Your task to perform on an android device: Clear all items from cart on target. Image 0: 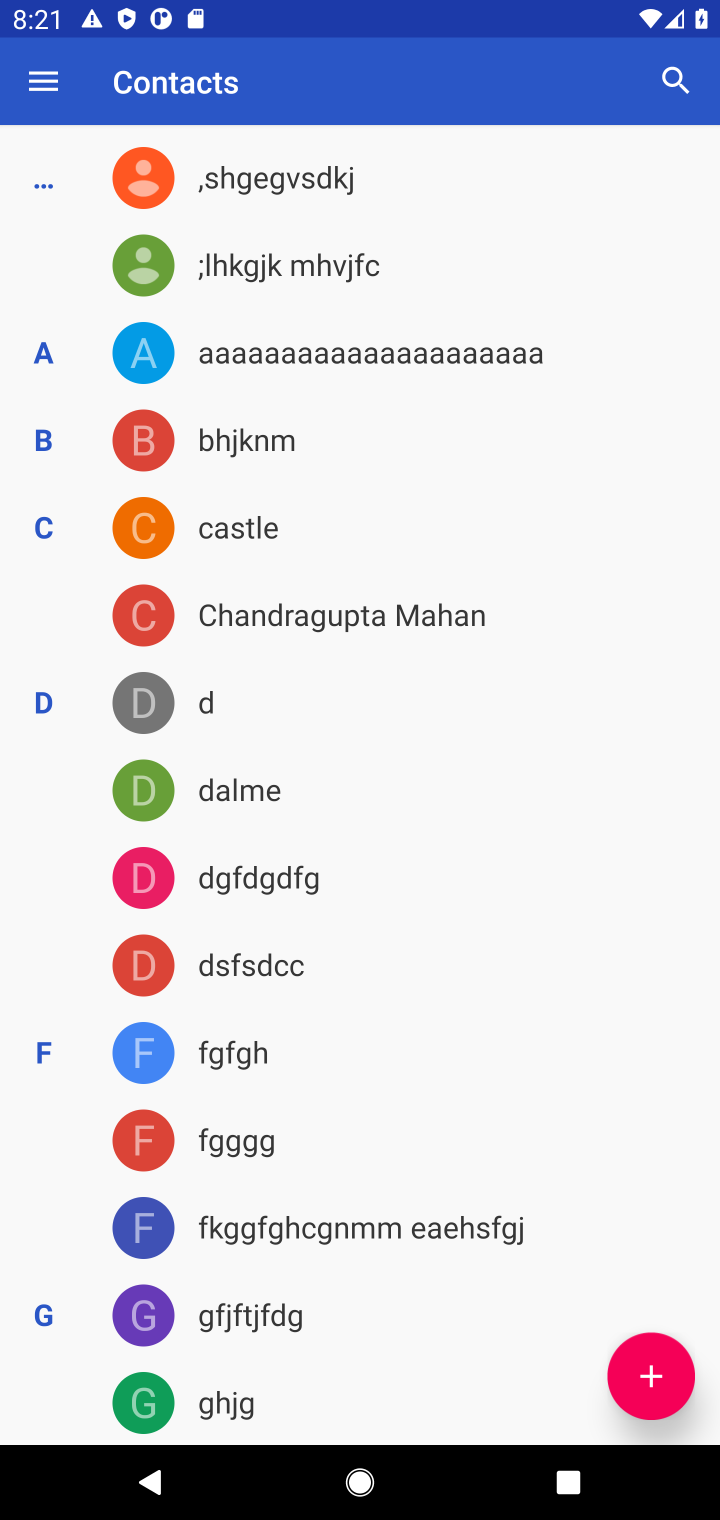
Step 0: press home button
Your task to perform on an android device: Clear all items from cart on target. Image 1: 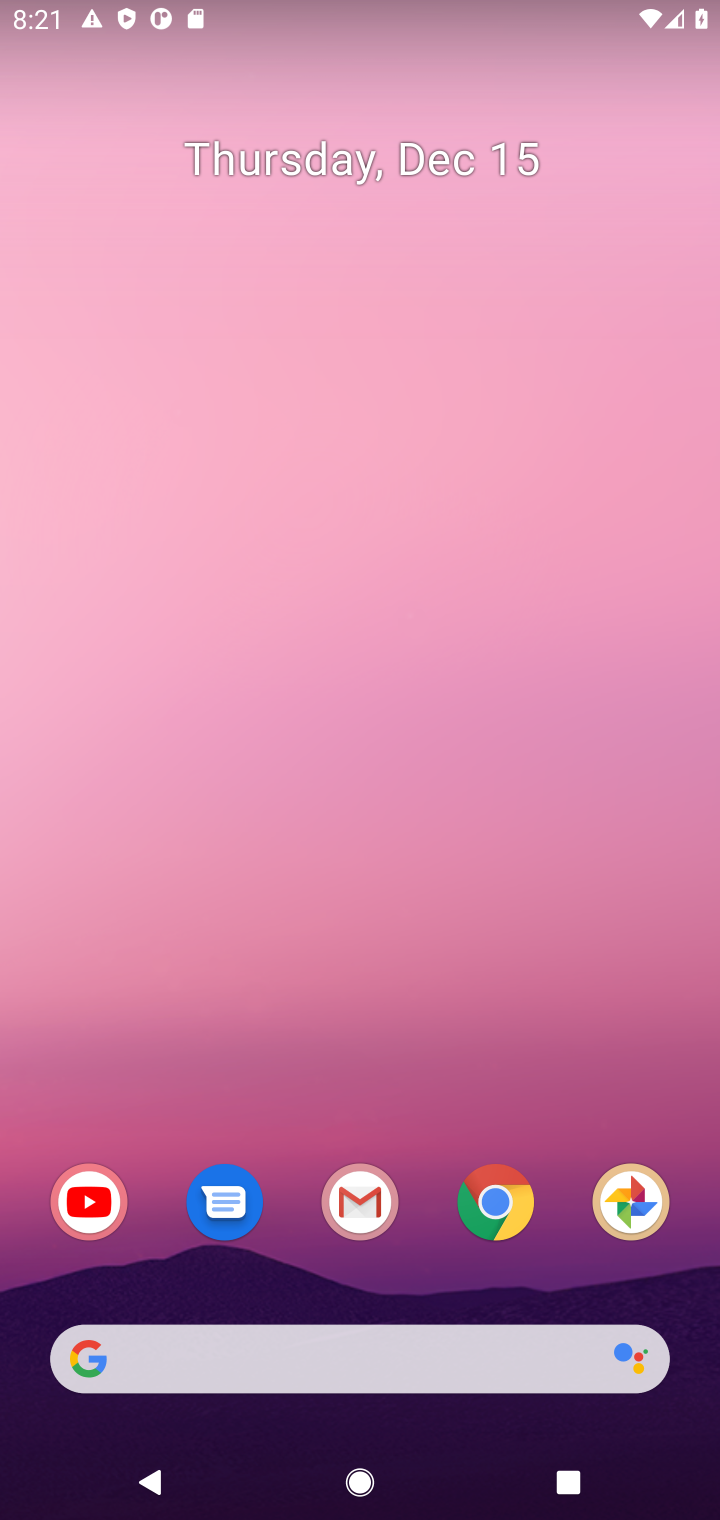
Step 1: click (501, 1207)
Your task to perform on an android device: Clear all items from cart on target. Image 2: 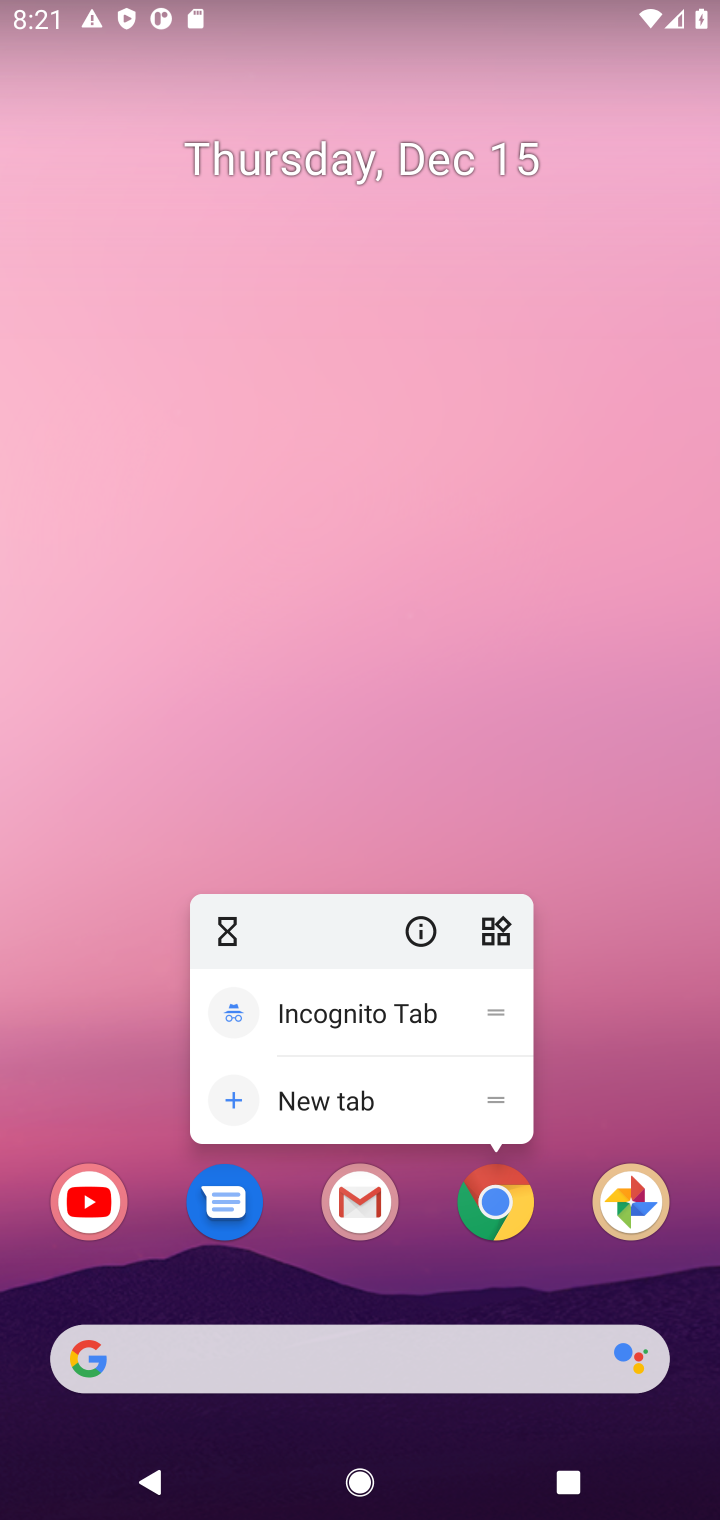
Step 2: click (501, 1207)
Your task to perform on an android device: Clear all items from cart on target. Image 3: 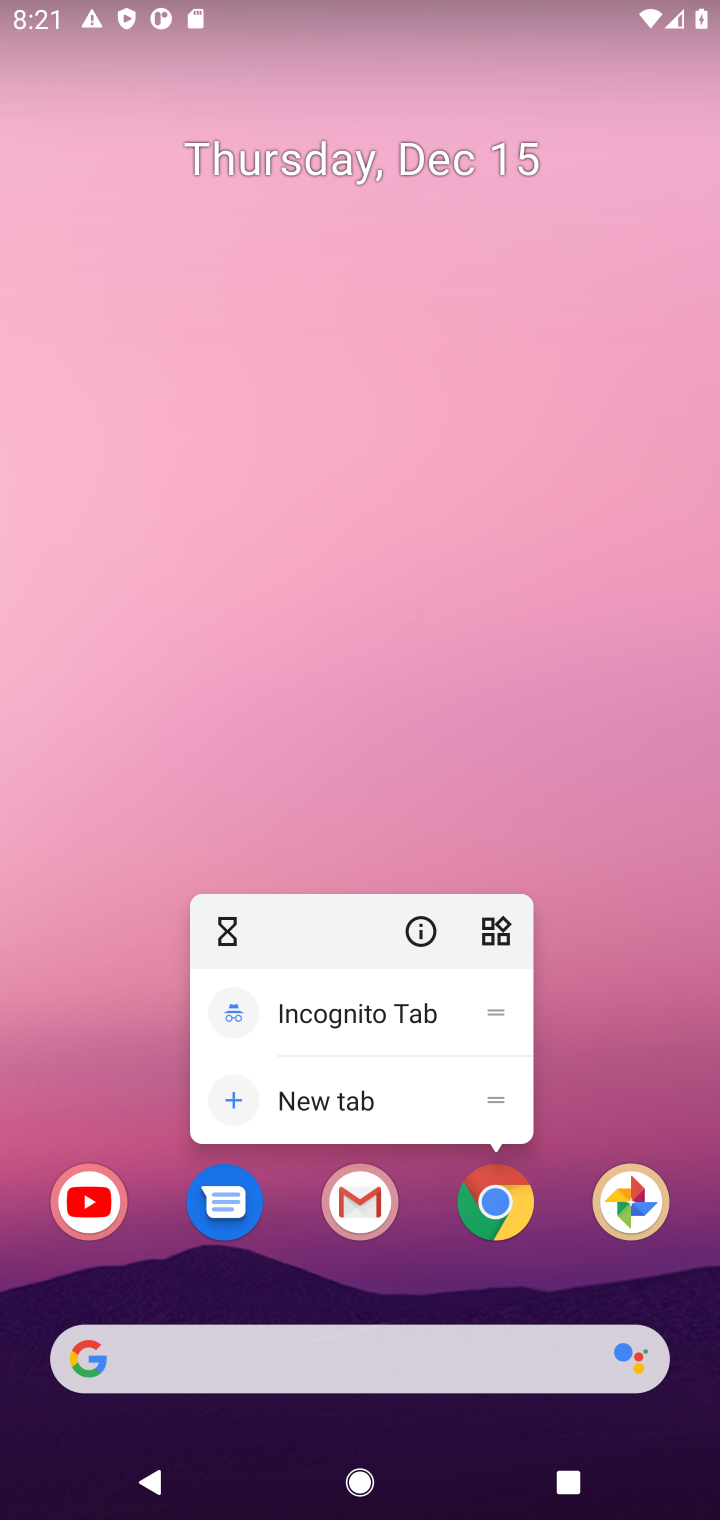
Step 3: click (501, 1207)
Your task to perform on an android device: Clear all items from cart on target. Image 4: 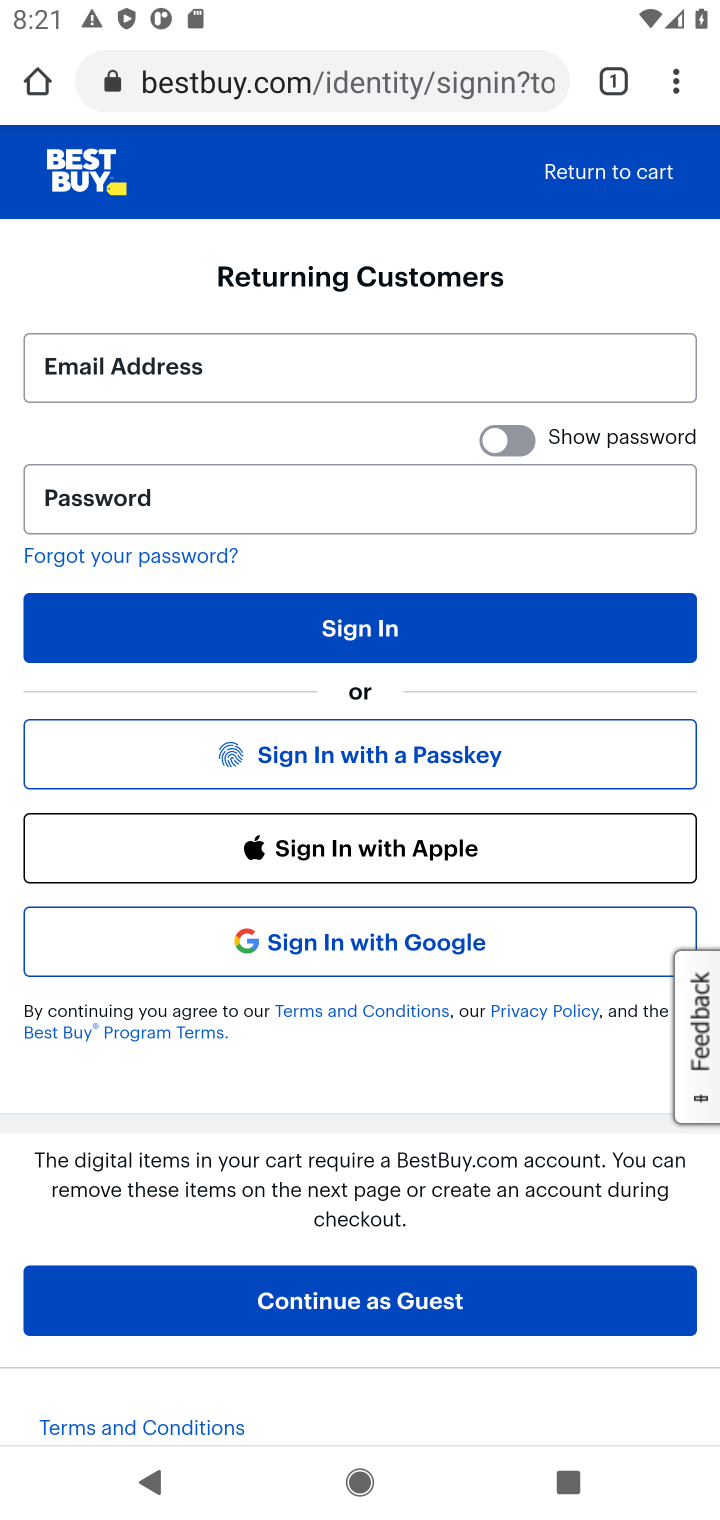
Step 4: click (283, 82)
Your task to perform on an android device: Clear all items from cart on target. Image 5: 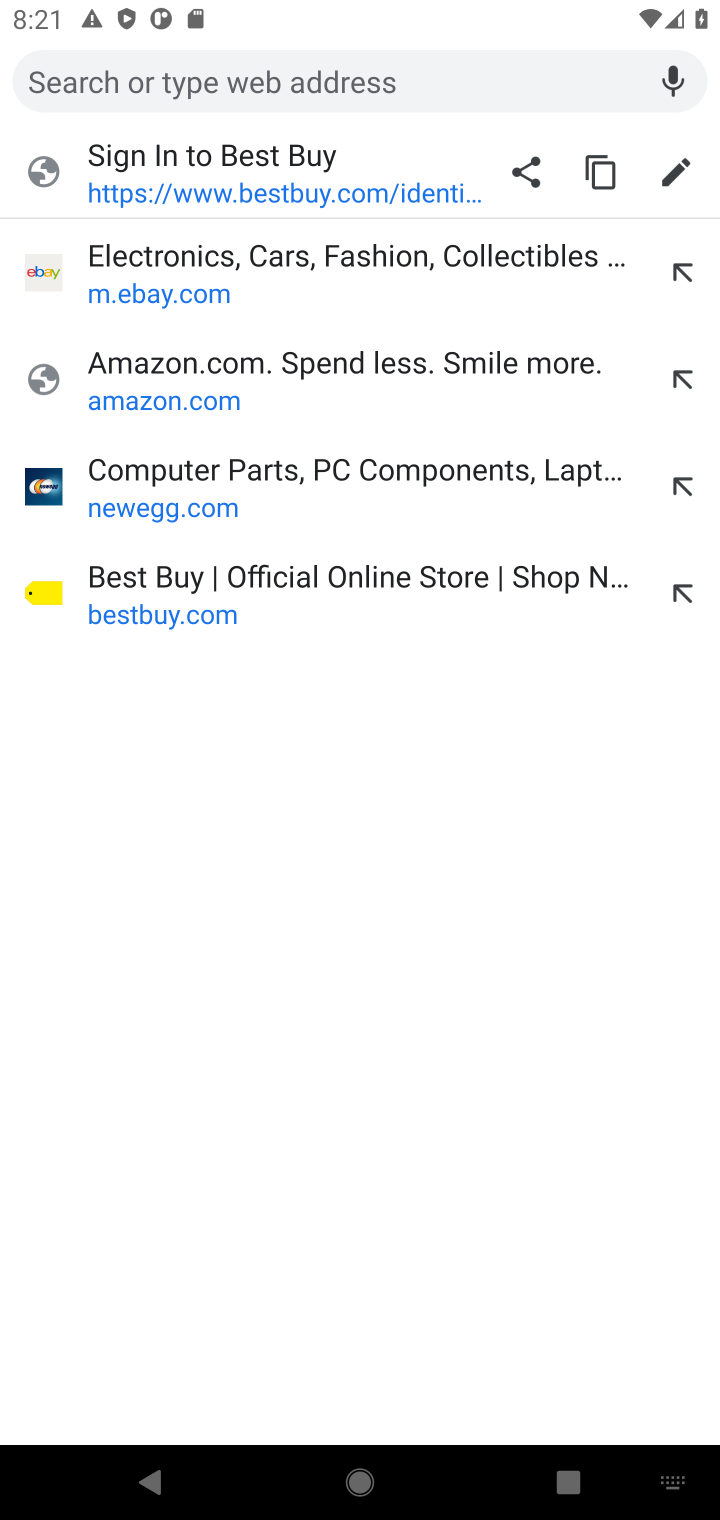
Step 5: type "target.com"
Your task to perform on an android device: Clear all items from cart on target. Image 6: 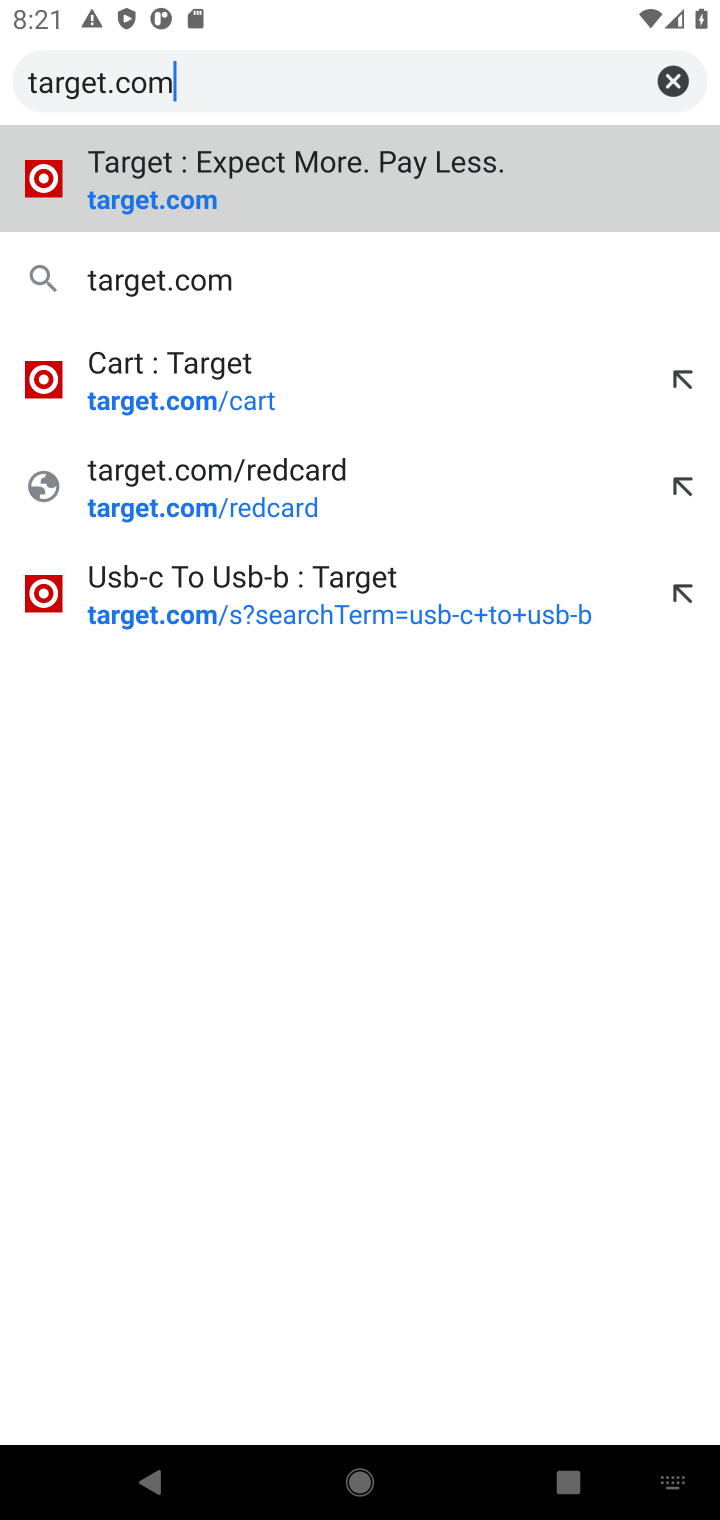
Step 6: click (144, 208)
Your task to perform on an android device: Clear all items from cart on target. Image 7: 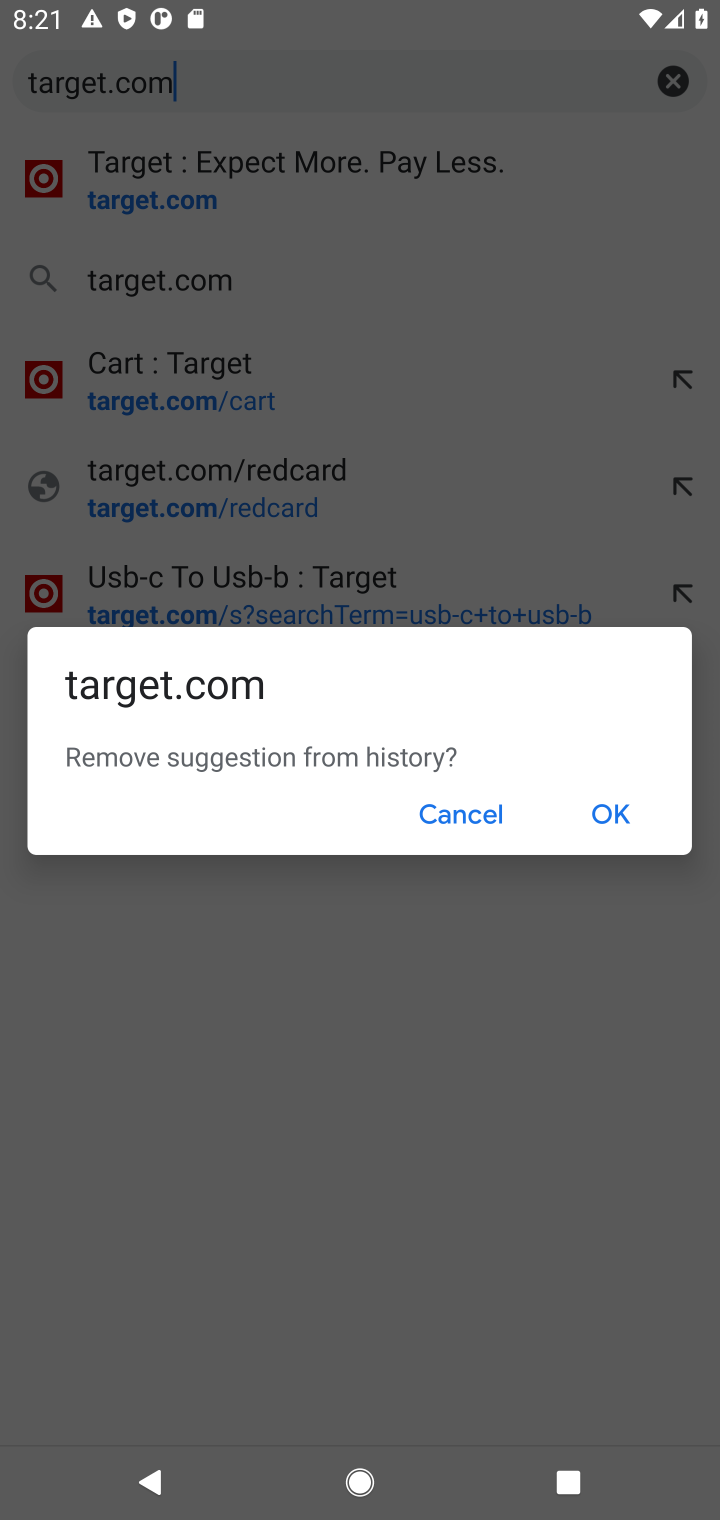
Step 7: click (441, 800)
Your task to perform on an android device: Clear all items from cart on target. Image 8: 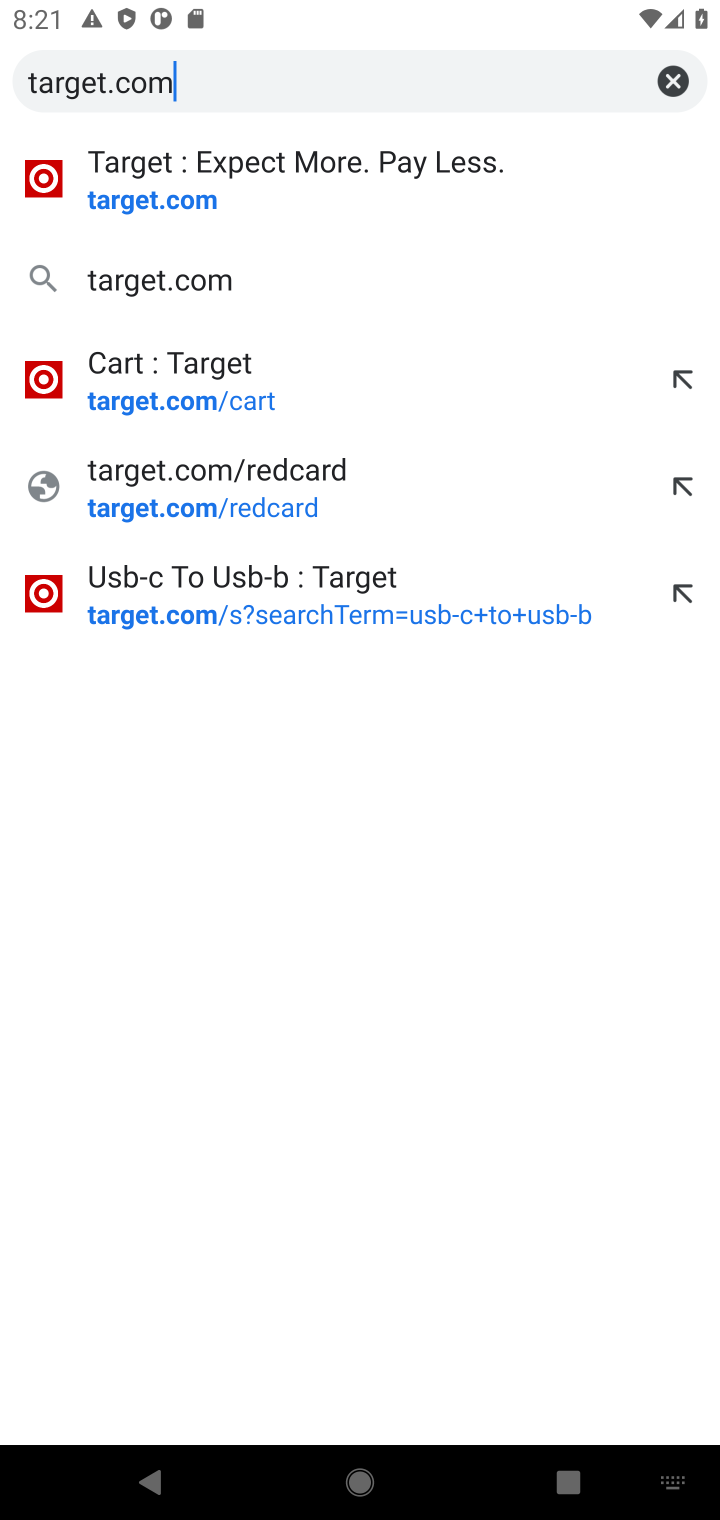
Step 8: click (132, 198)
Your task to perform on an android device: Clear all items from cart on target. Image 9: 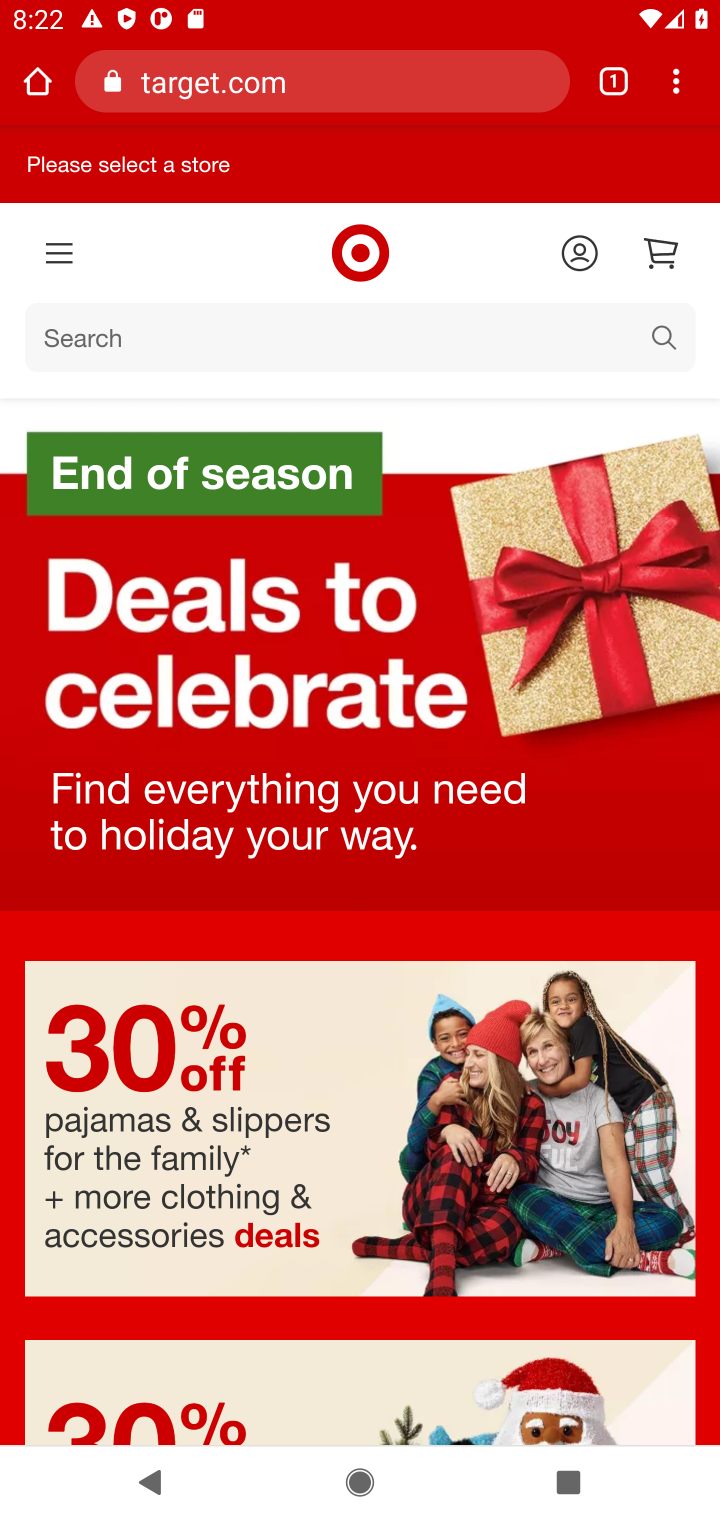
Step 9: click (676, 262)
Your task to perform on an android device: Clear all items from cart on target. Image 10: 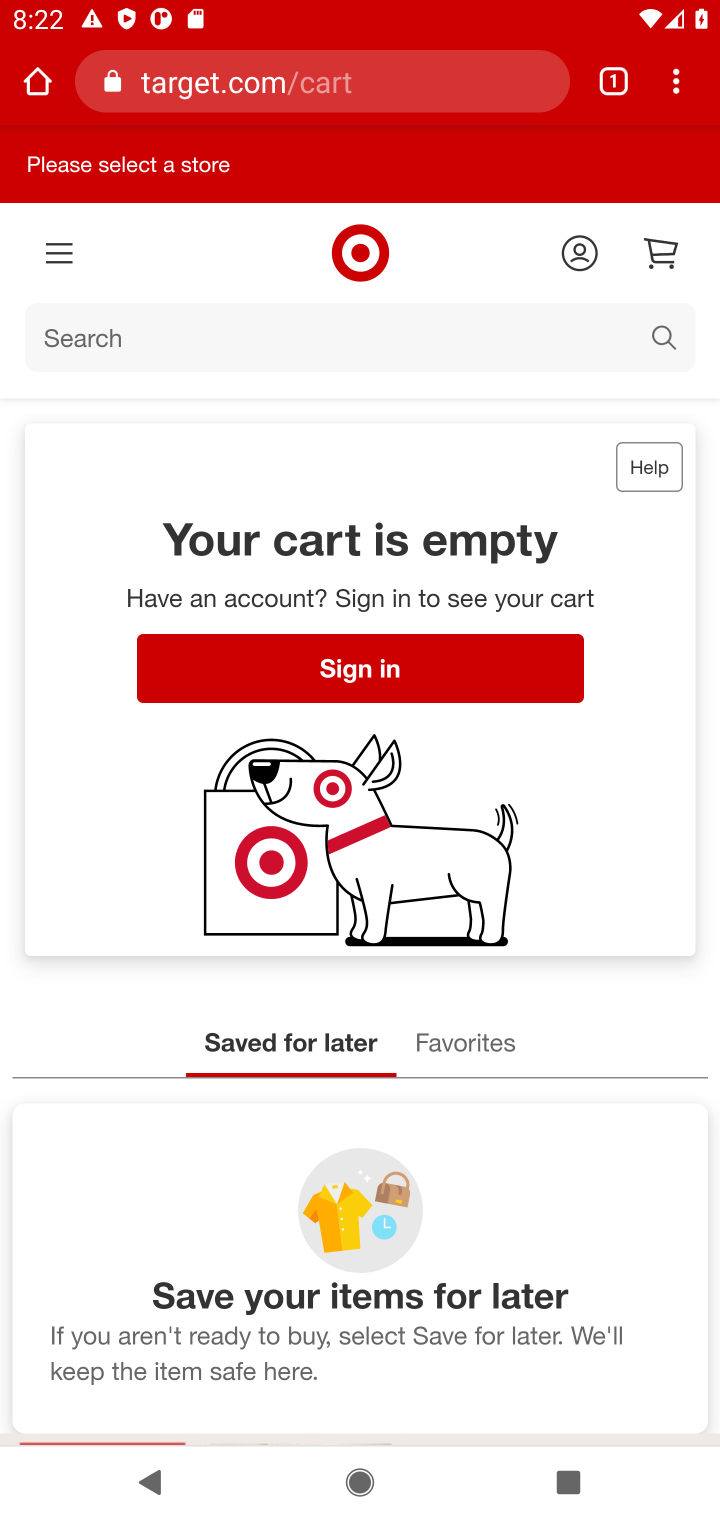
Step 10: task complete